Your task to perform on an android device: Open location settings Image 0: 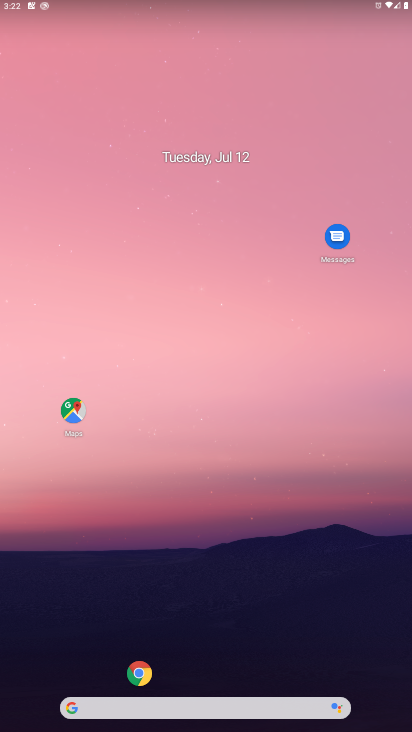
Step 0: drag from (27, 699) to (138, 253)
Your task to perform on an android device: Open location settings Image 1: 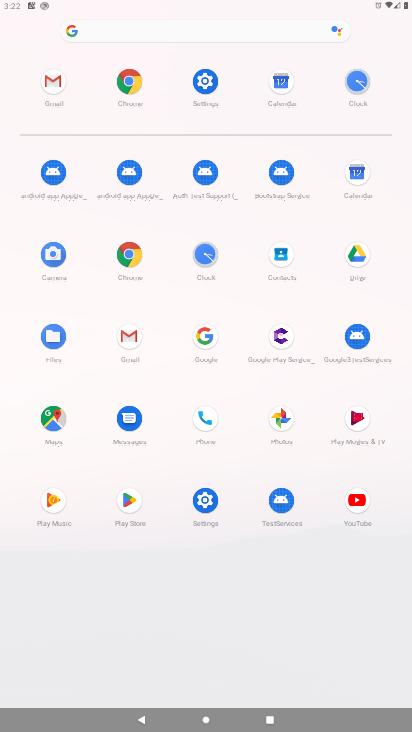
Step 1: click (200, 511)
Your task to perform on an android device: Open location settings Image 2: 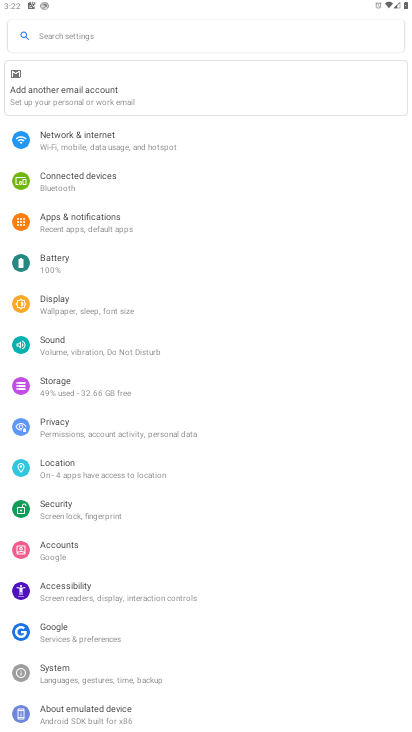
Step 2: click (62, 463)
Your task to perform on an android device: Open location settings Image 3: 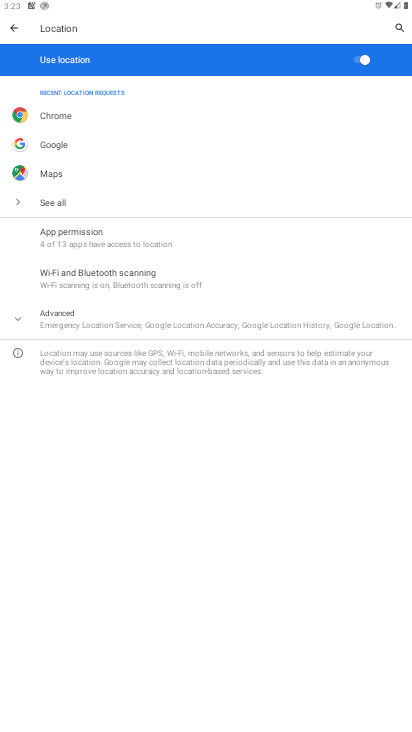
Step 3: task complete